Your task to perform on an android device: Clear the shopping cart on target. Add razer huntsman to the cart on target Image 0: 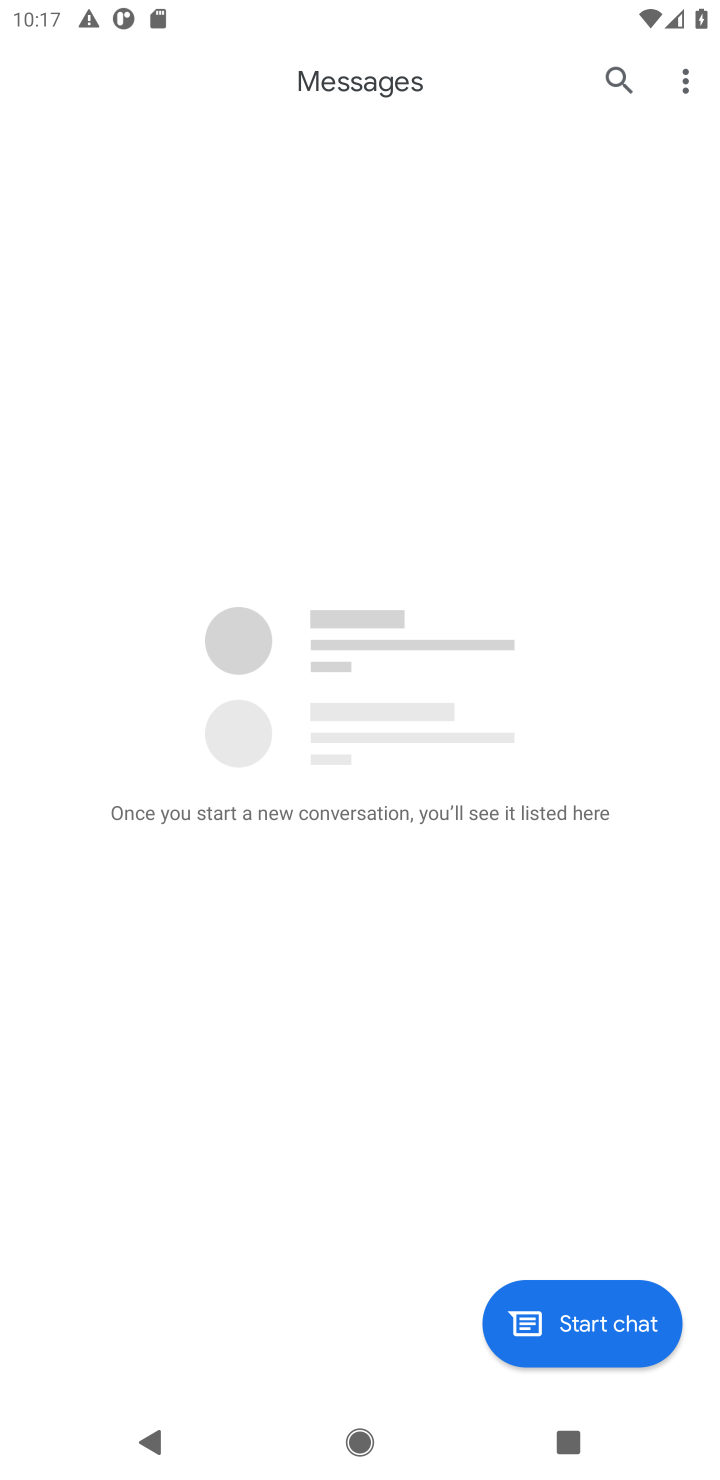
Step 0: press home button
Your task to perform on an android device: Clear the shopping cart on target. Add razer huntsman to the cart on target Image 1: 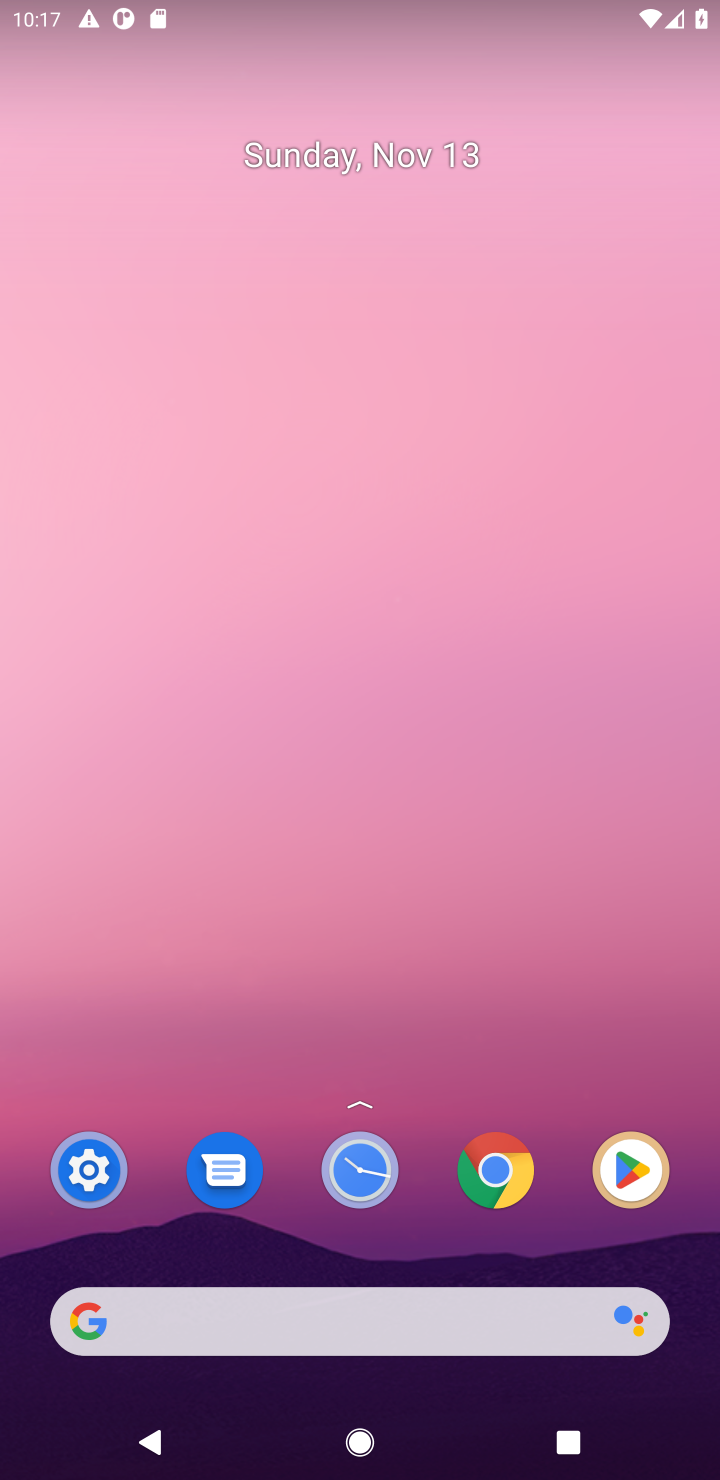
Step 1: click (387, 1327)
Your task to perform on an android device: Clear the shopping cart on target. Add razer huntsman to the cart on target Image 2: 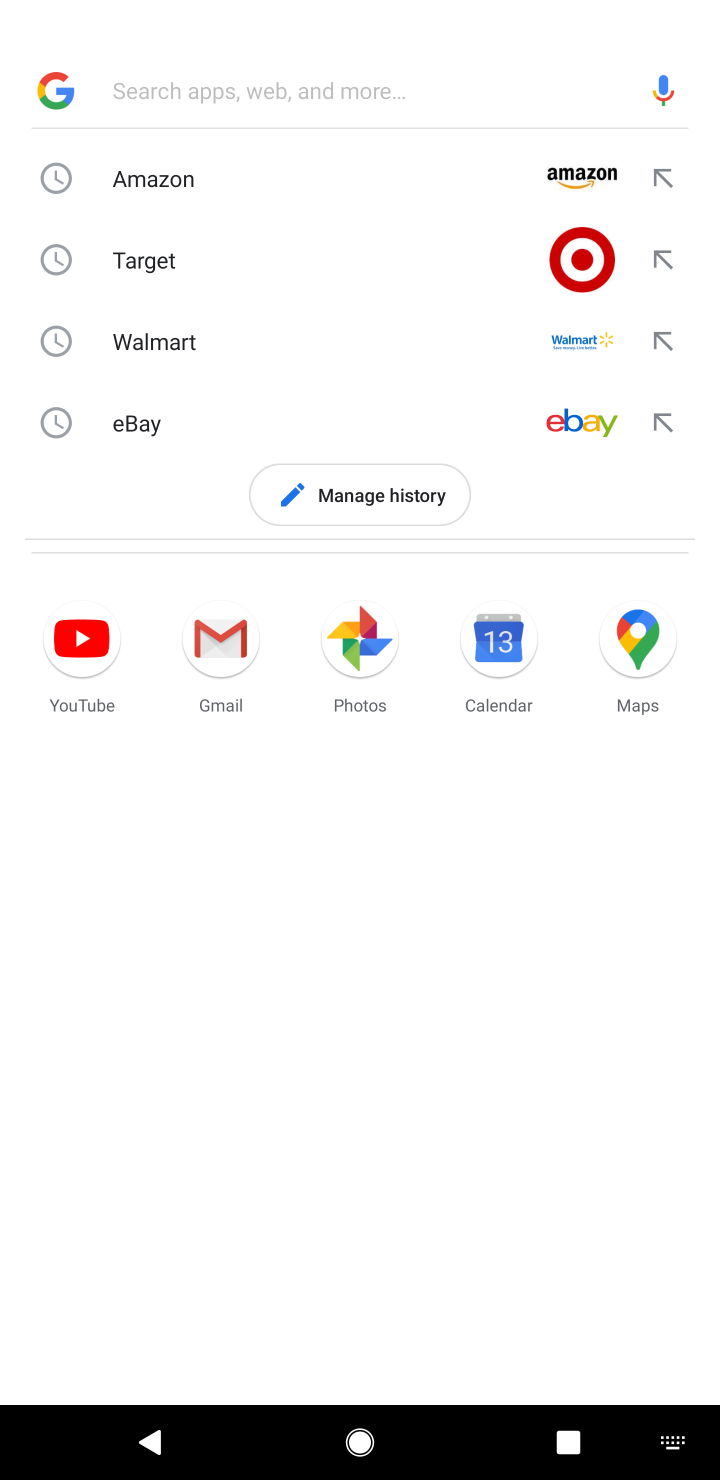
Step 2: type "target.com"
Your task to perform on an android device: Clear the shopping cart on target. Add razer huntsman to the cart on target Image 3: 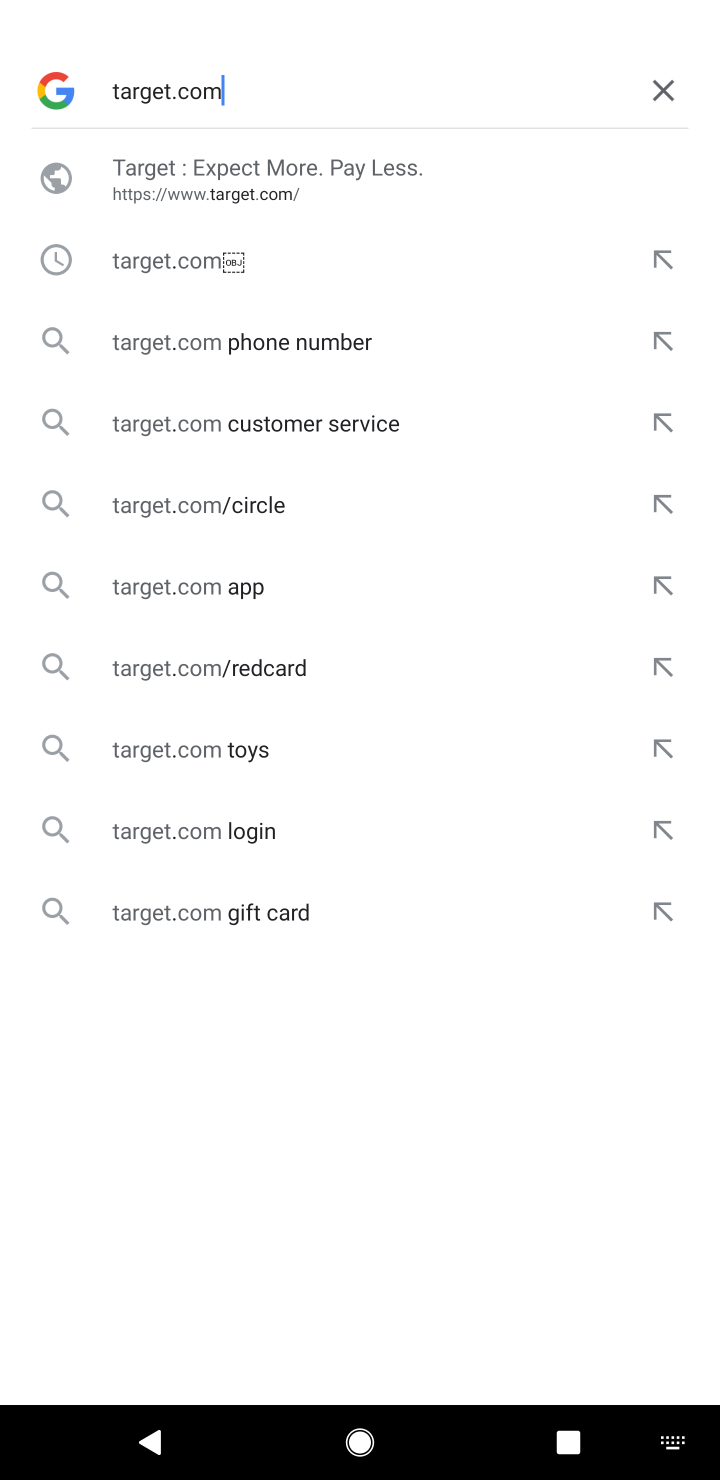
Step 3: click (165, 164)
Your task to perform on an android device: Clear the shopping cart on target. Add razer huntsman to the cart on target Image 4: 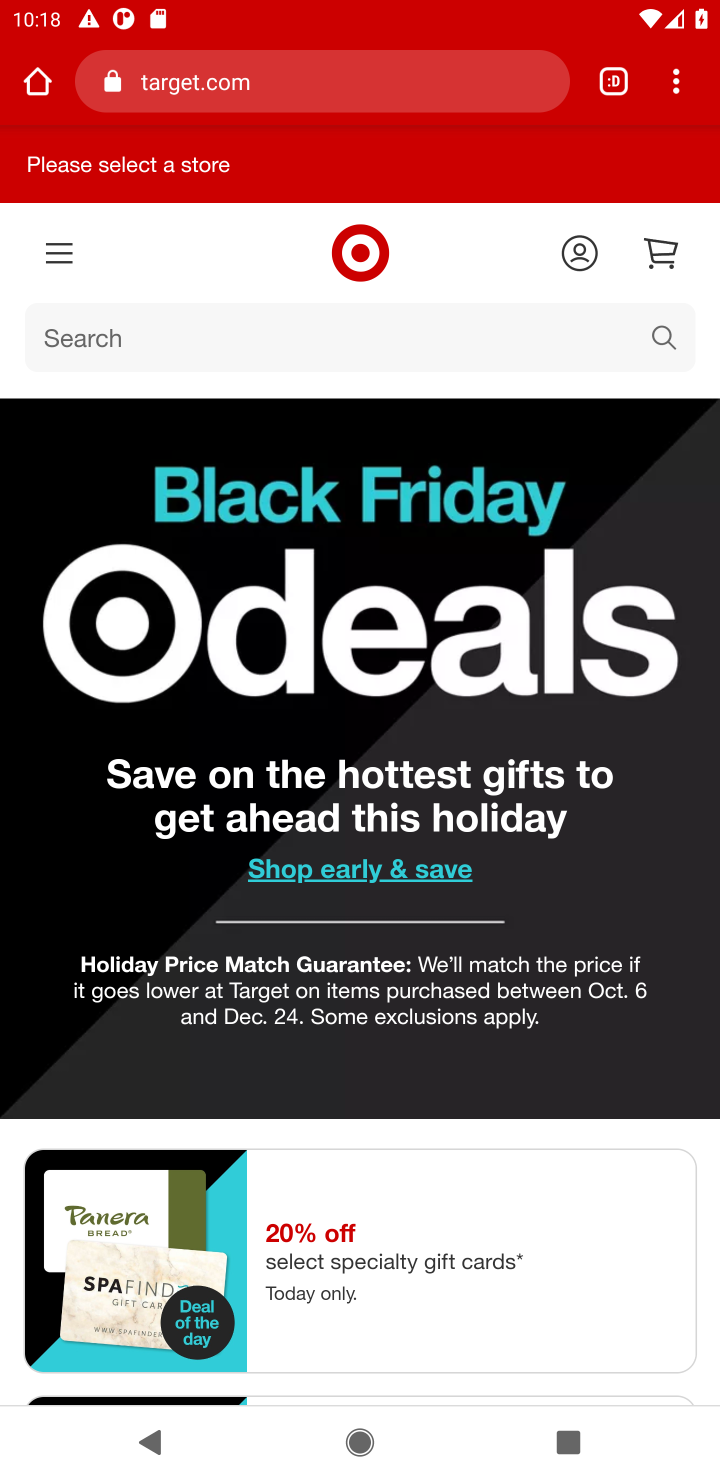
Step 4: task complete